Your task to perform on an android device: Show me popular games on the Play Store Image 0: 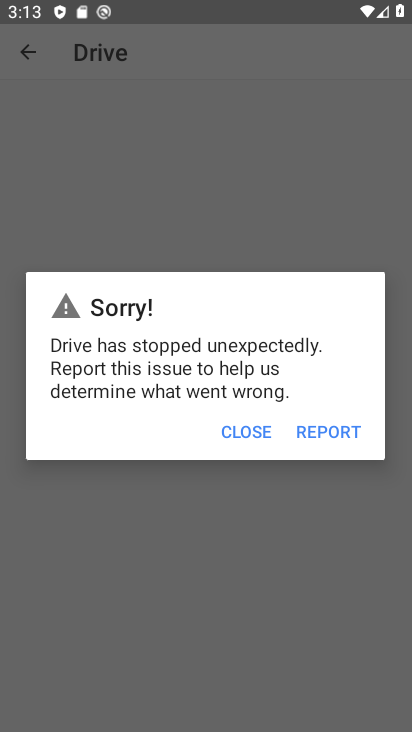
Step 0: press home button
Your task to perform on an android device: Show me popular games on the Play Store Image 1: 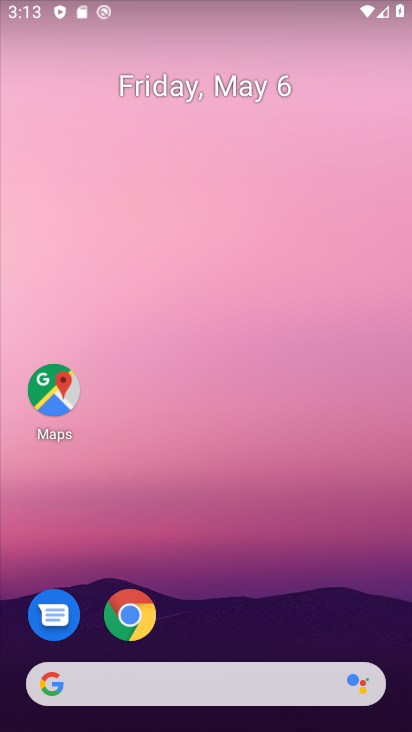
Step 1: drag from (308, 591) to (295, 117)
Your task to perform on an android device: Show me popular games on the Play Store Image 2: 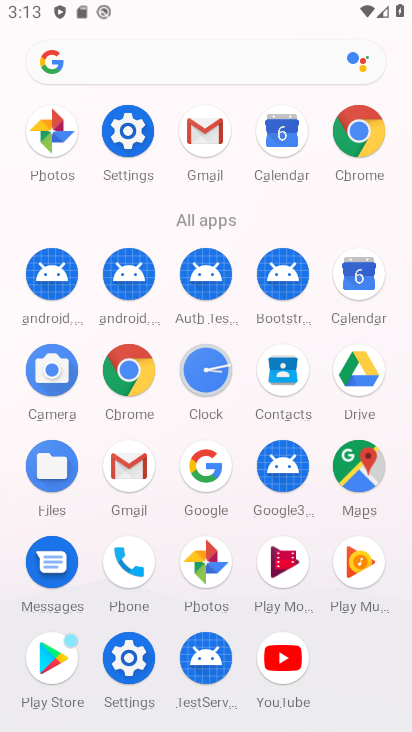
Step 2: click (56, 657)
Your task to perform on an android device: Show me popular games on the Play Store Image 3: 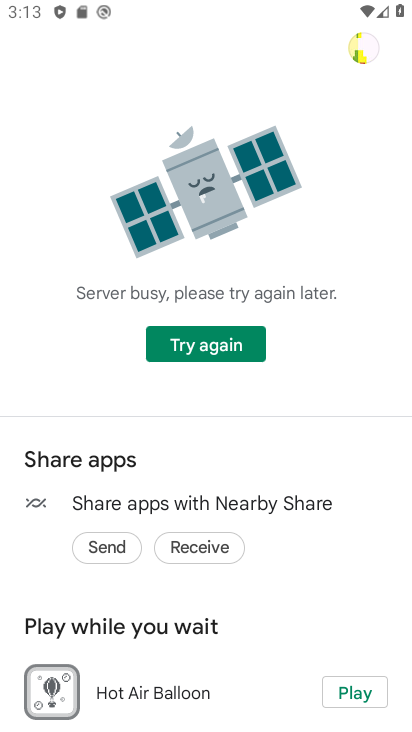
Step 3: task complete